Your task to perform on an android device: Open Maps and search for coffee Image 0: 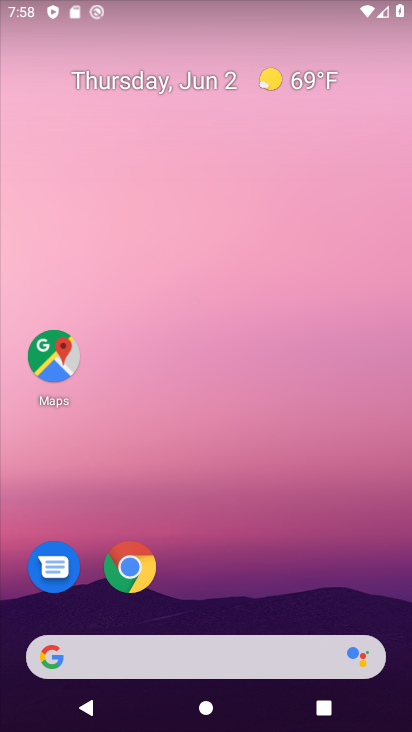
Step 0: click (55, 356)
Your task to perform on an android device: Open Maps and search for coffee Image 1: 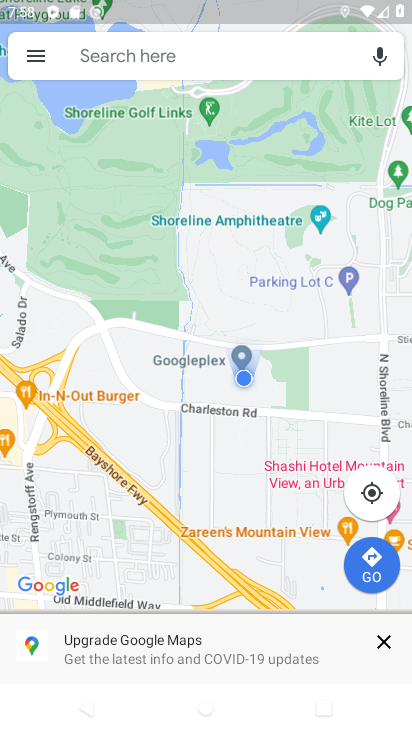
Step 1: click (152, 54)
Your task to perform on an android device: Open Maps and search for coffee Image 2: 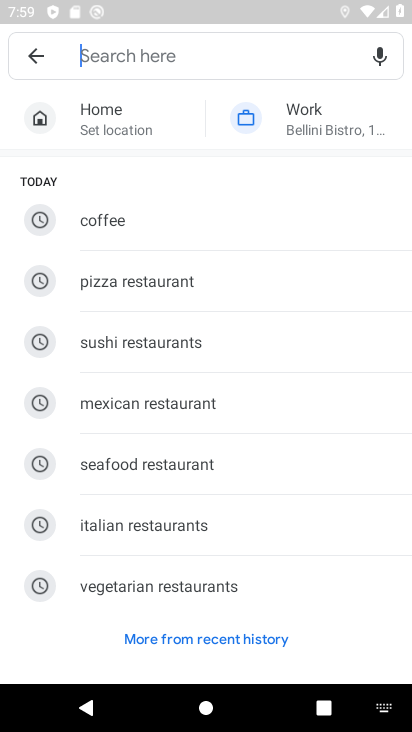
Step 2: type "coffee"
Your task to perform on an android device: Open Maps and search for coffee Image 3: 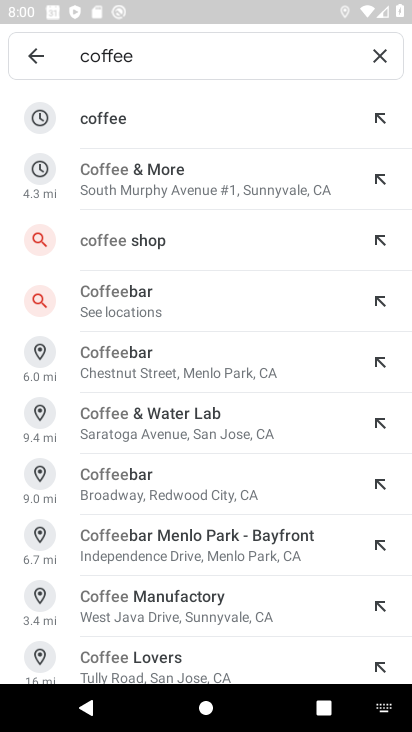
Step 3: click (96, 119)
Your task to perform on an android device: Open Maps and search for coffee Image 4: 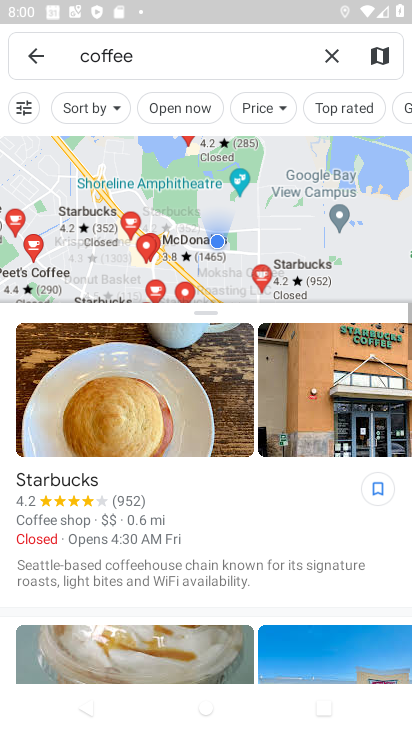
Step 4: task complete